Your task to perform on an android device: Clear all items from cart on ebay.com. Image 0: 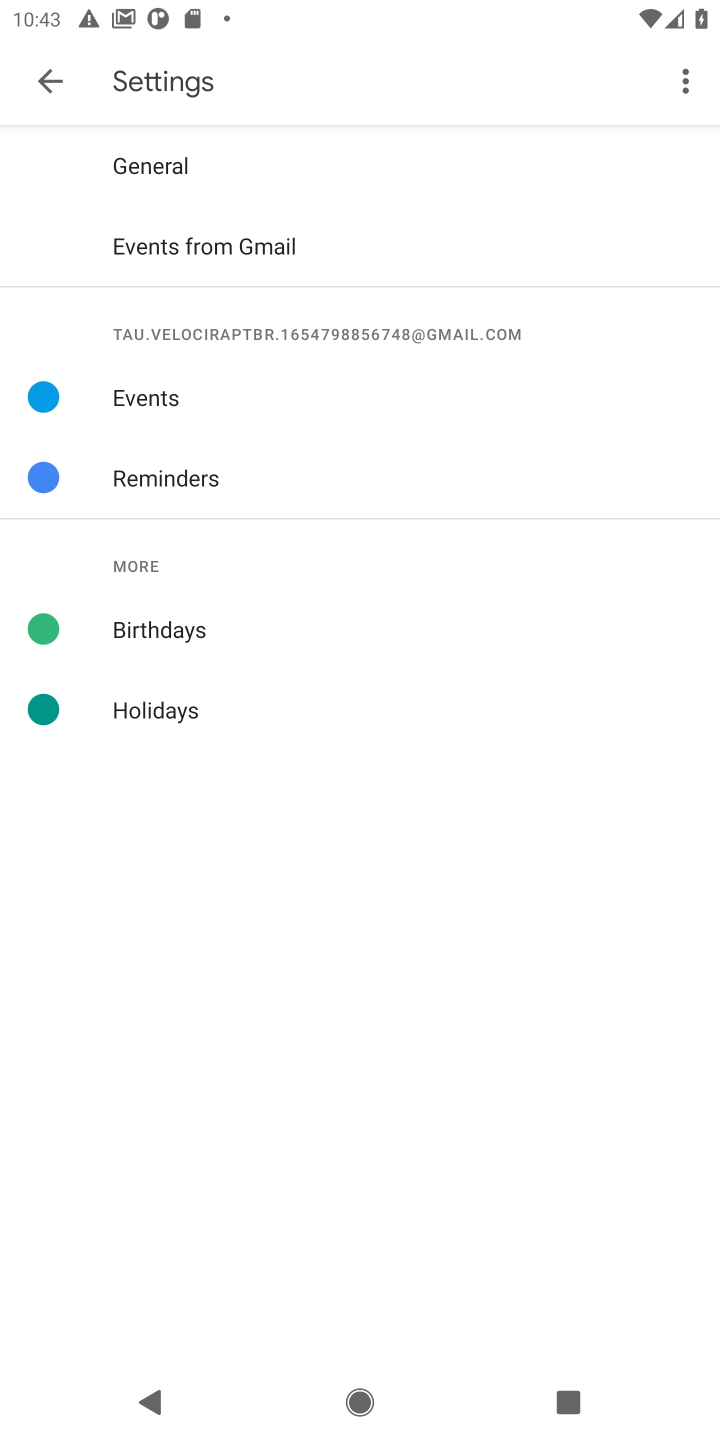
Step 0: press home button
Your task to perform on an android device: Clear all items from cart on ebay.com. Image 1: 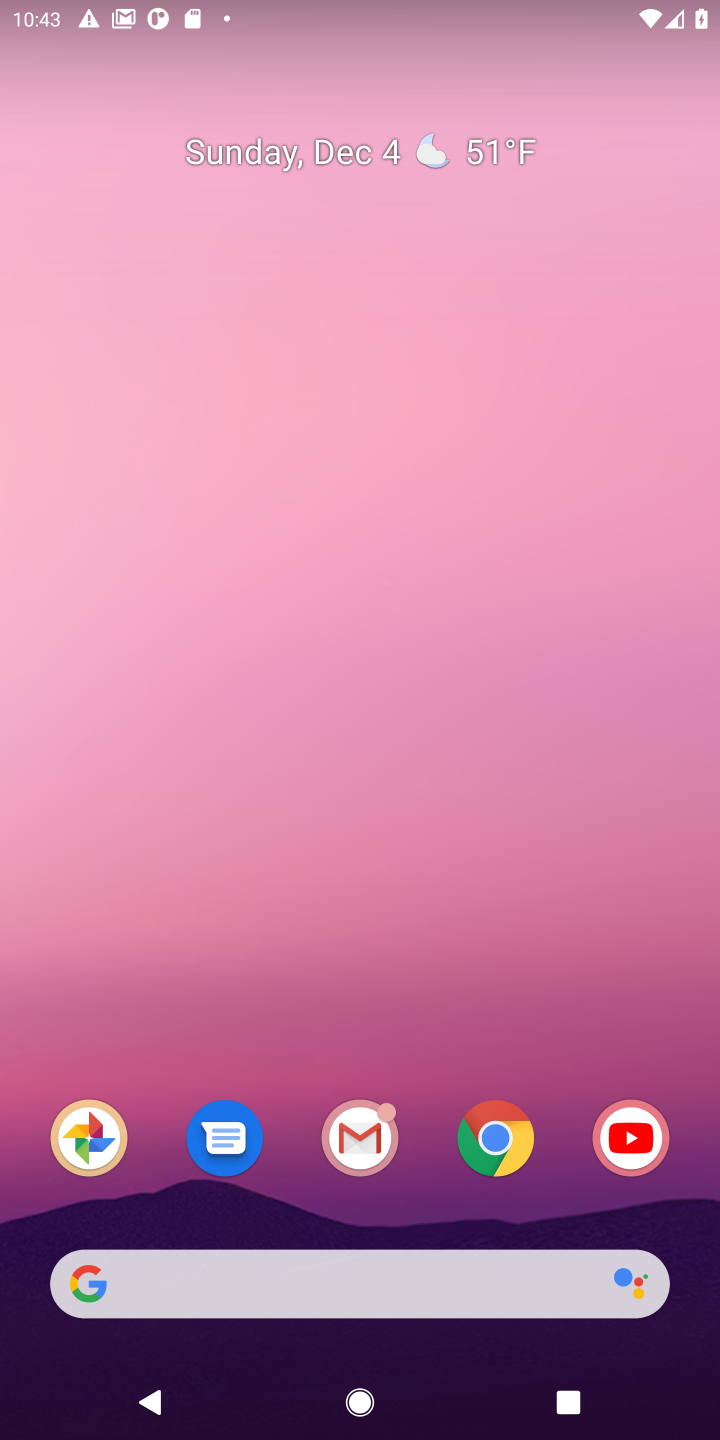
Step 1: click (500, 1137)
Your task to perform on an android device: Clear all items from cart on ebay.com. Image 2: 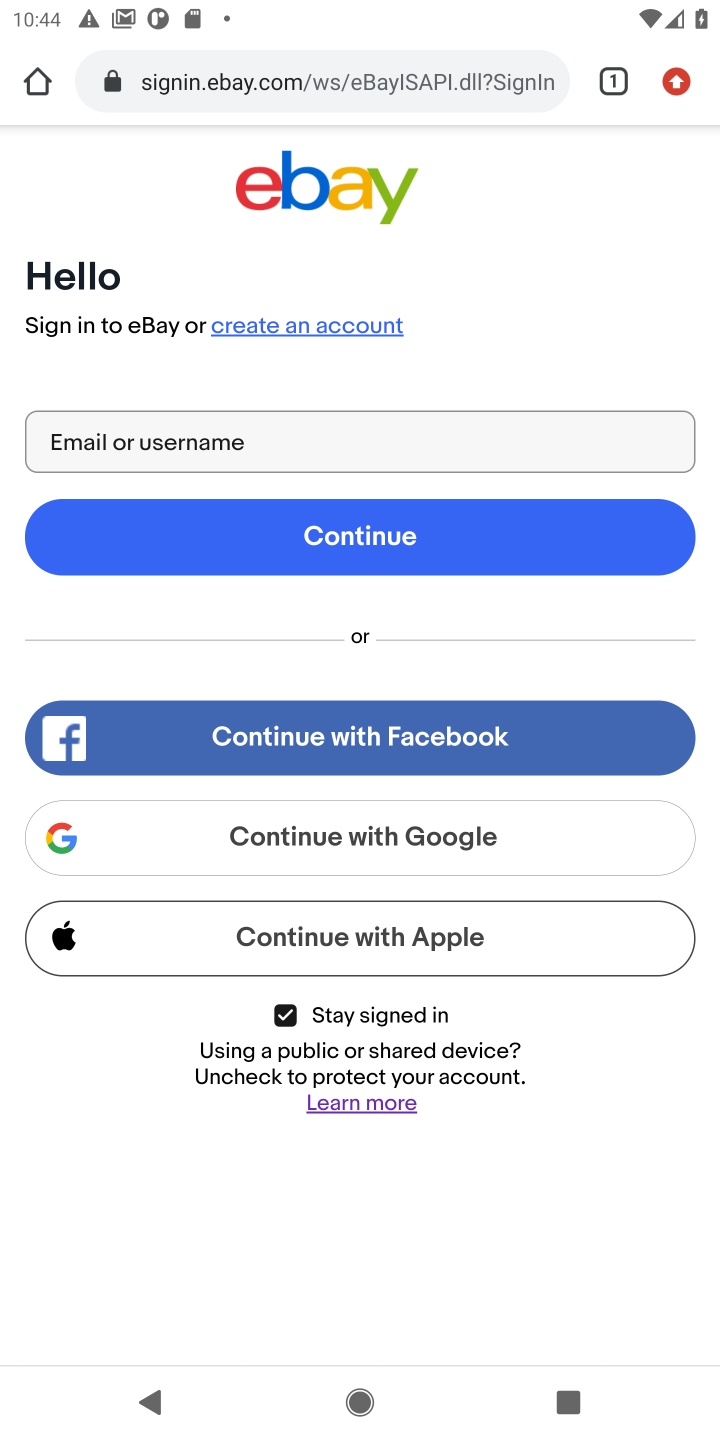
Step 2: press back button
Your task to perform on an android device: Clear all items from cart on ebay.com. Image 3: 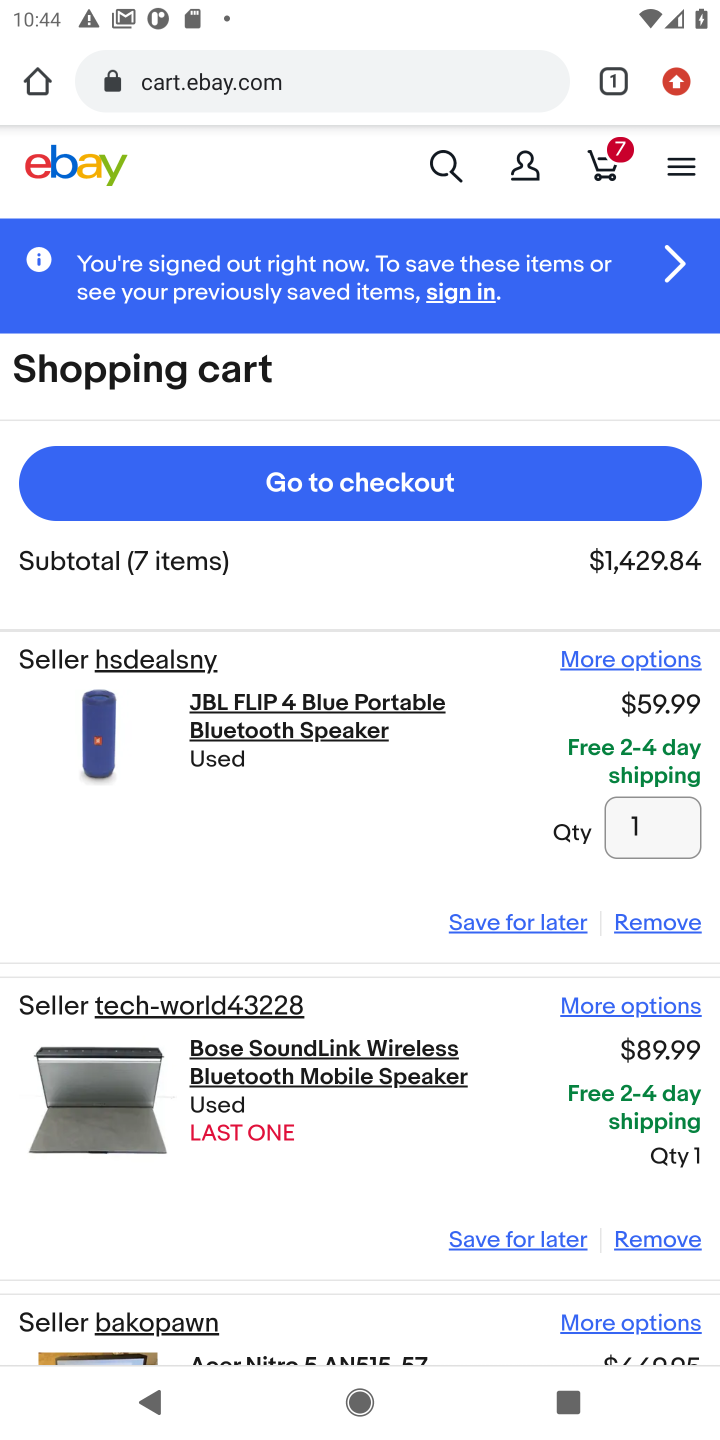
Step 3: click (664, 923)
Your task to perform on an android device: Clear all items from cart on ebay.com. Image 4: 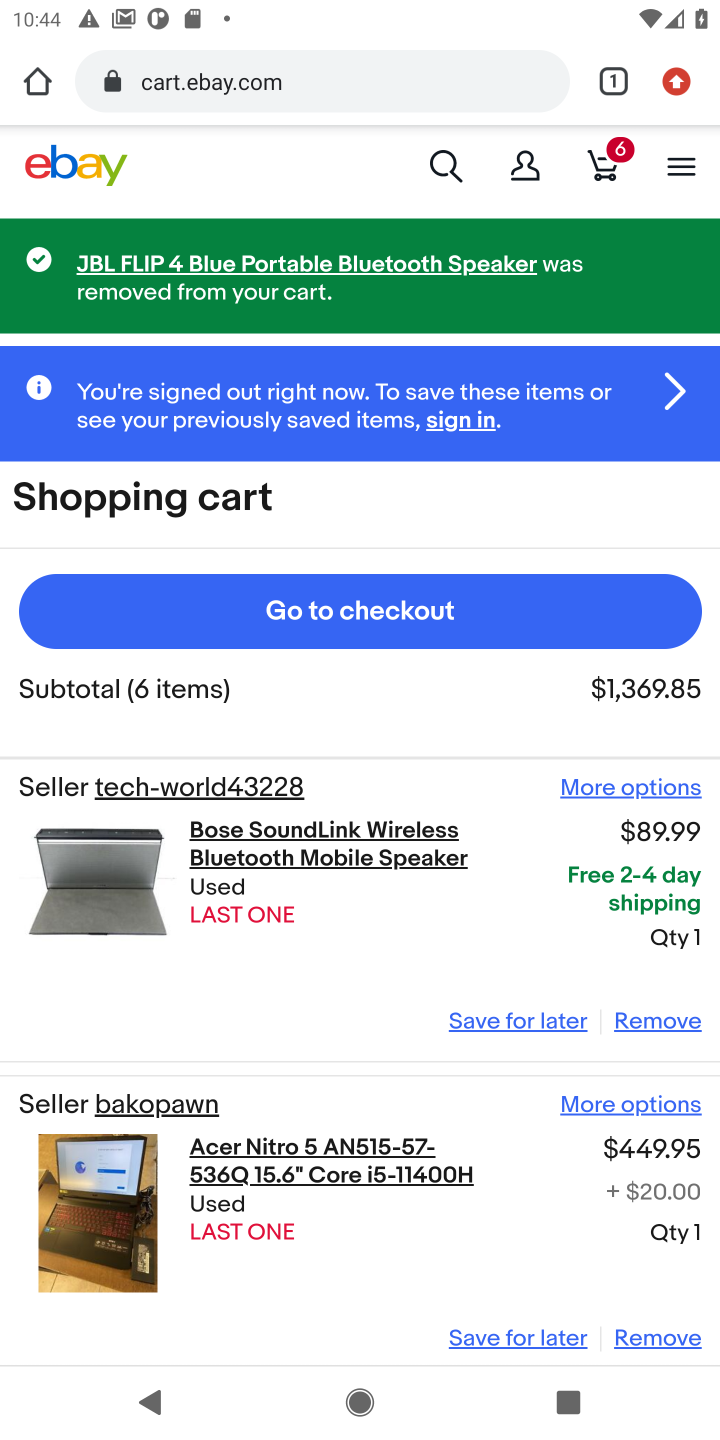
Step 4: click (667, 1013)
Your task to perform on an android device: Clear all items from cart on ebay.com. Image 5: 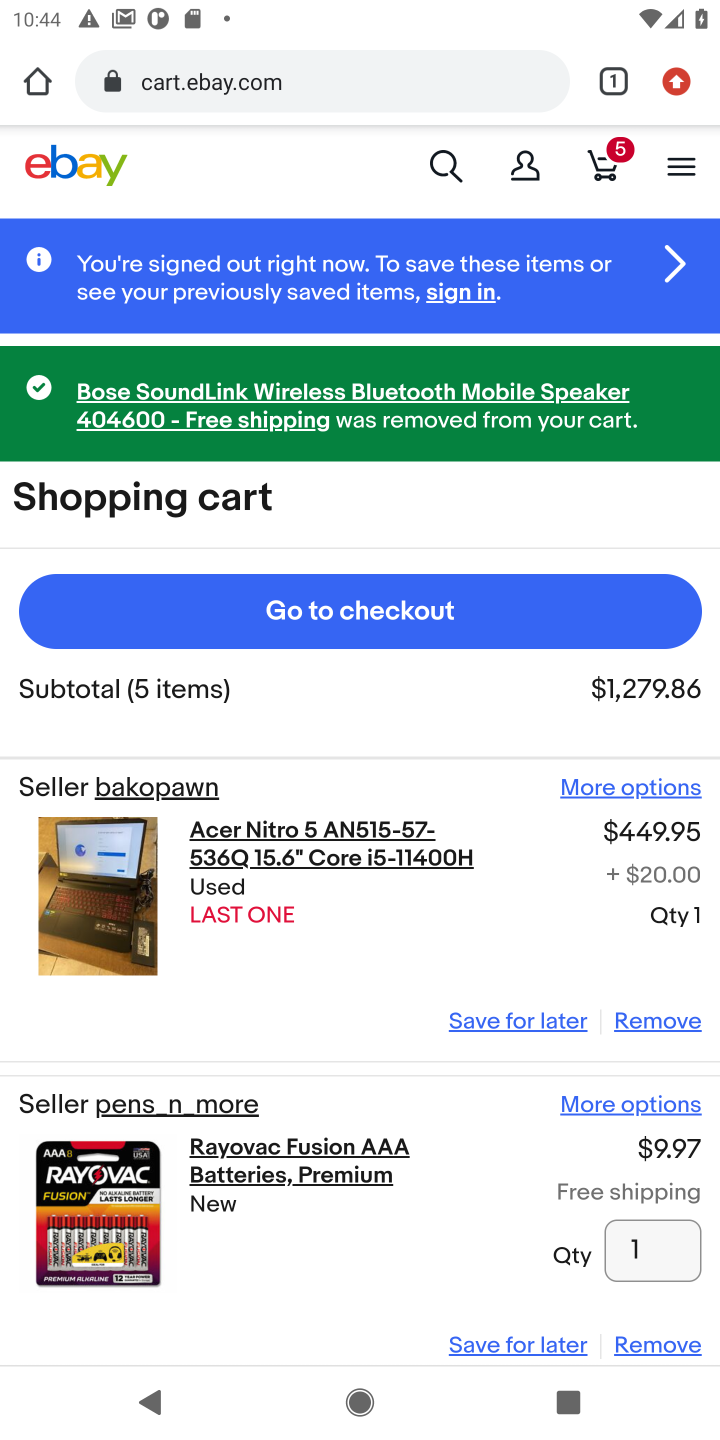
Step 5: click (667, 1013)
Your task to perform on an android device: Clear all items from cart on ebay.com. Image 6: 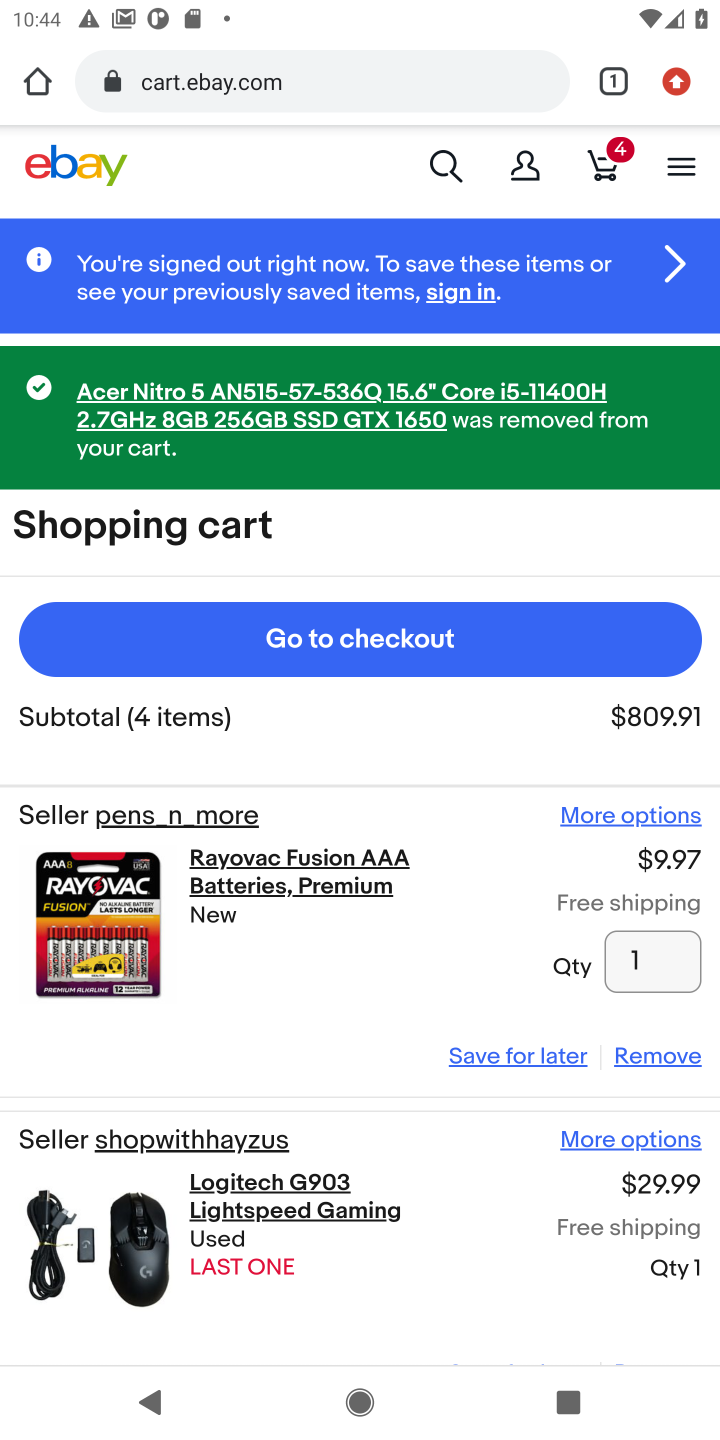
Step 6: click (657, 1049)
Your task to perform on an android device: Clear all items from cart on ebay.com. Image 7: 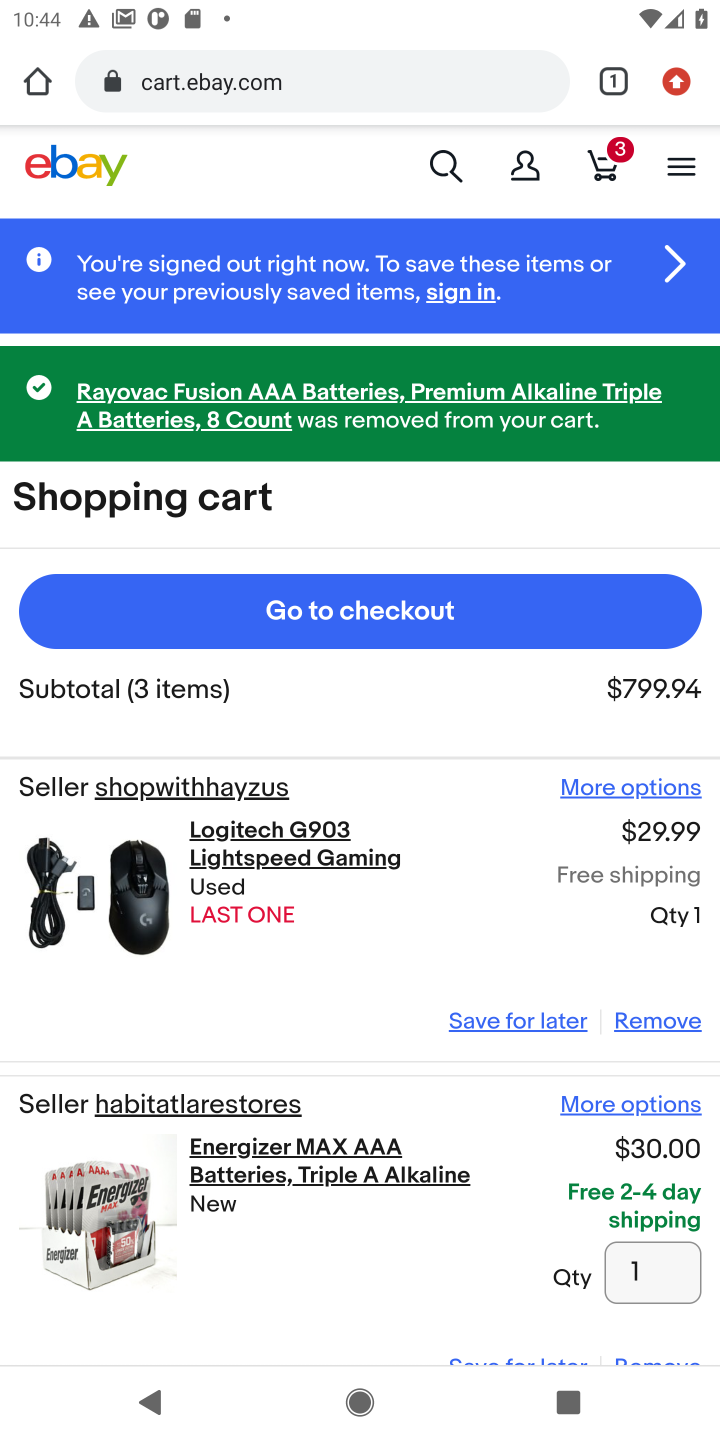
Step 7: click (659, 1020)
Your task to perform on an android device: Clear all items from cart on ebay.com. Image 8: 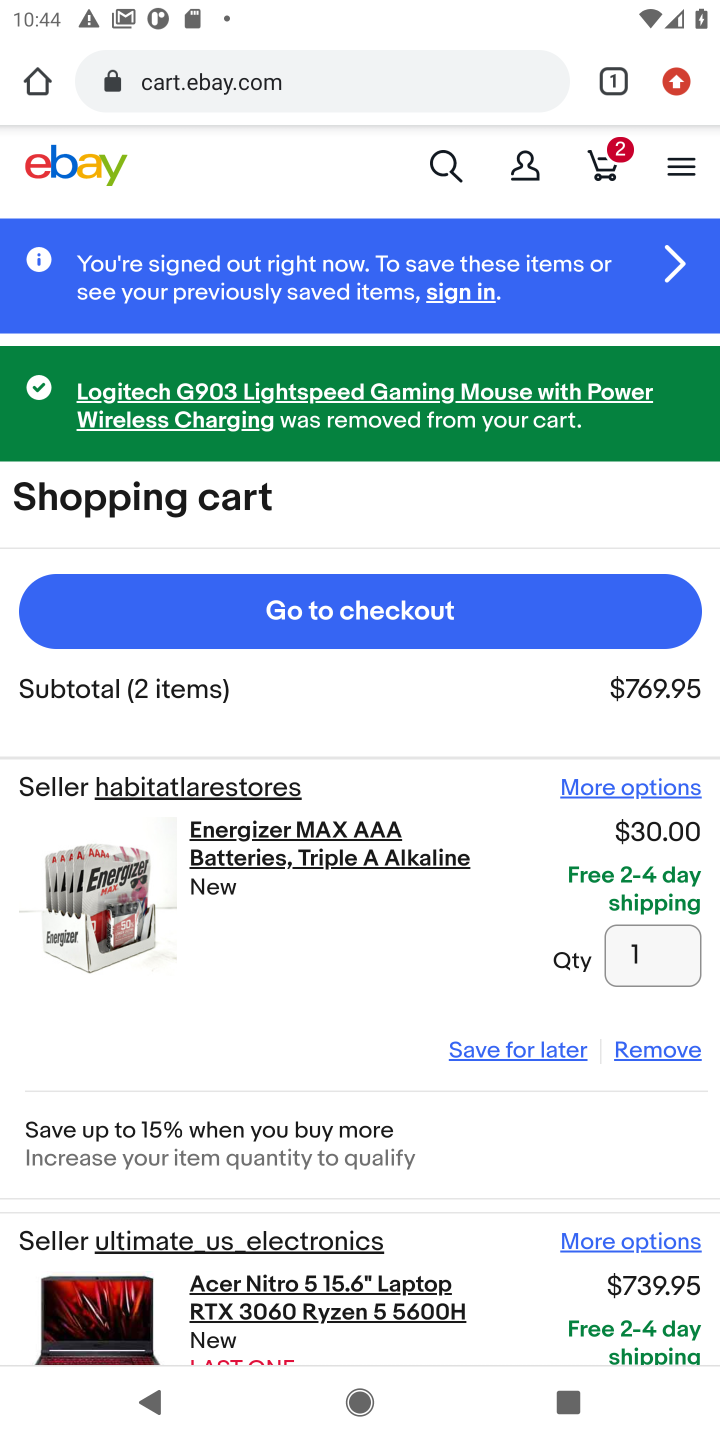
Step 8: click (652, 1047)
Your task to perform on an android device: Clear all items from cart on ebay.com. Image 9: 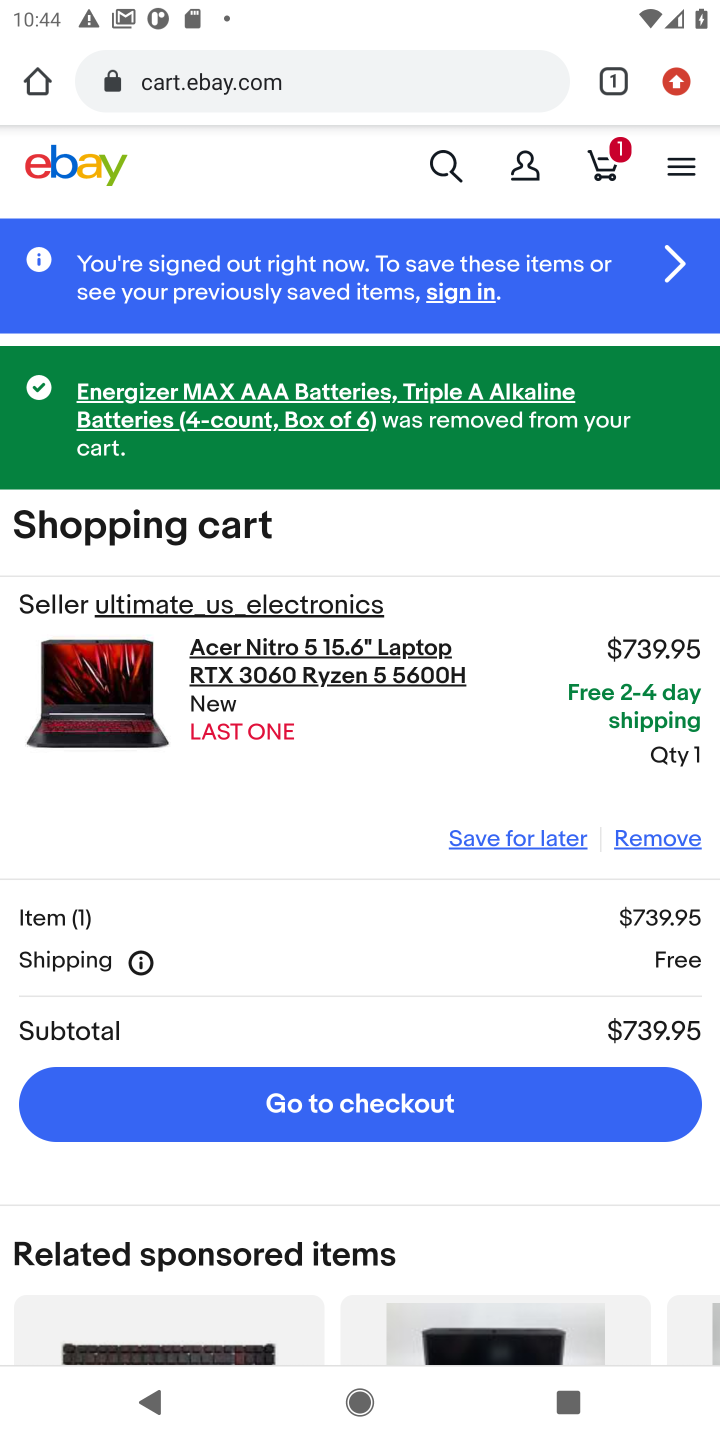
Step 9: click (662, 841)
Your task to perform on an android device: Clear all items from cart on ebay.com. Image 10: 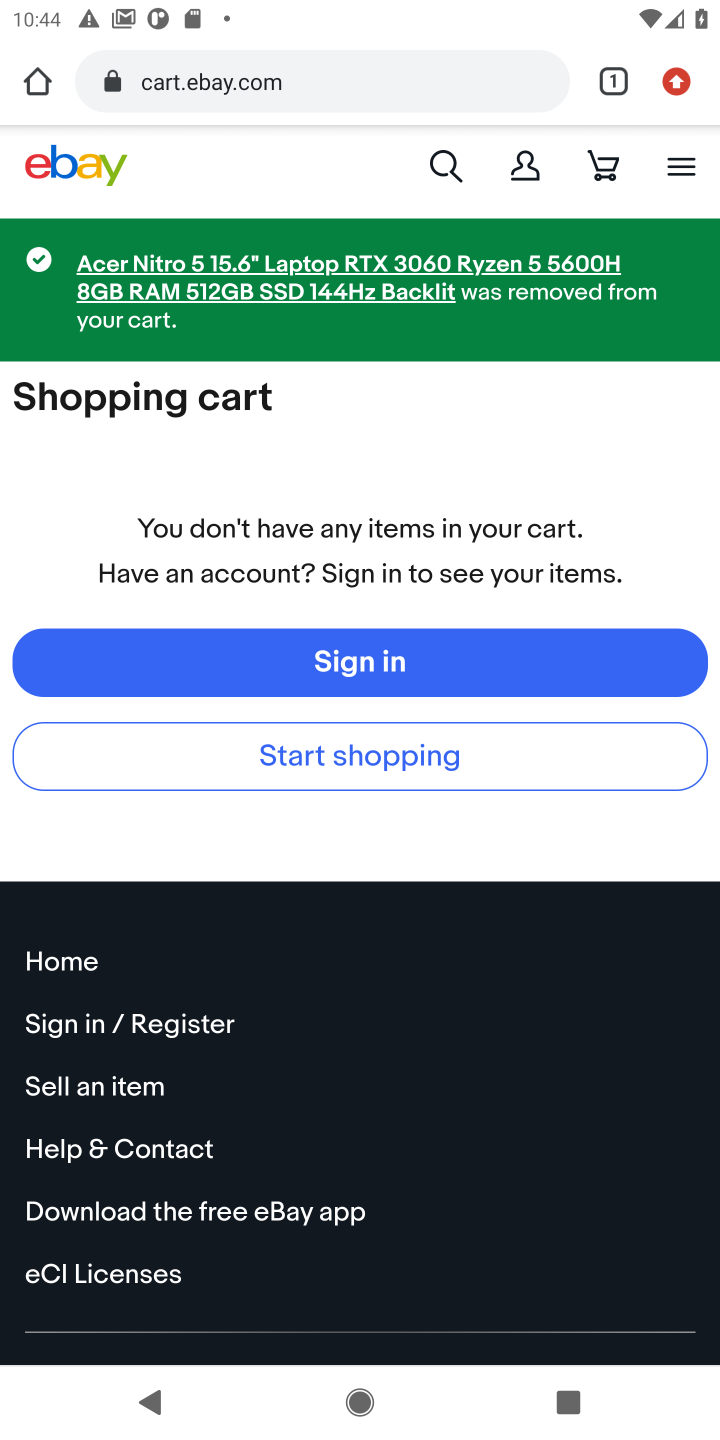
Step 10: task complete